Your task to perform on an android device: toggle location history Image 0: 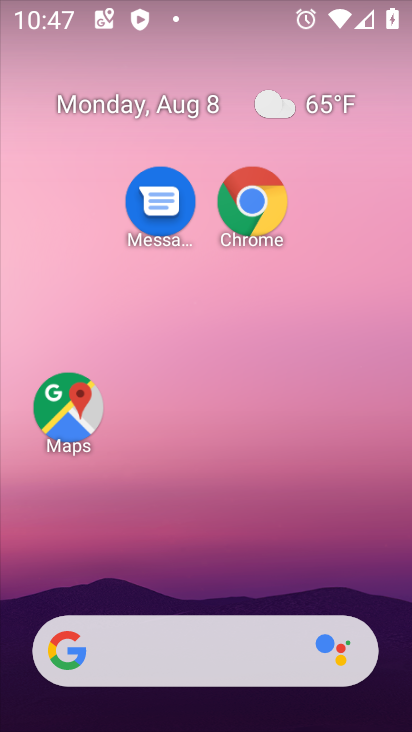
Step 0: press home button
Your task to perform on an android device: toggle location history Image 1: 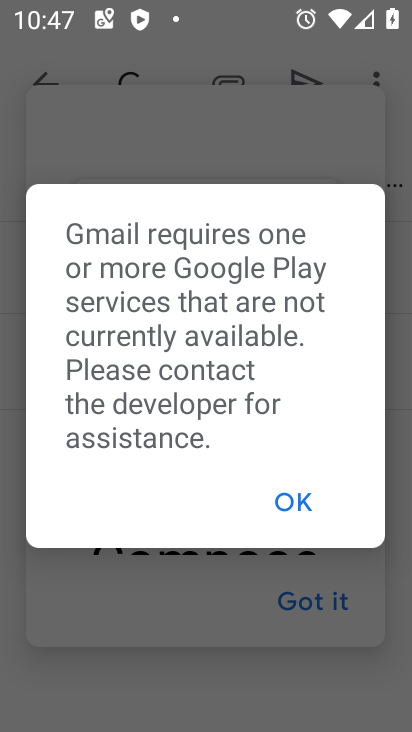
Step 1: drag from (246, 393) to (248, 72)
Your task to perform on an android device: toggle location history Image 2: 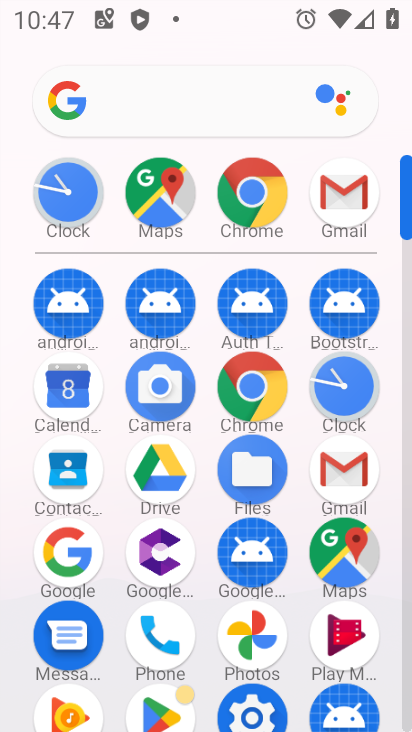
Step 2: drag from (209, 665) to (248, 87)
Your task to perform on an android device: toggle location history Image 3: 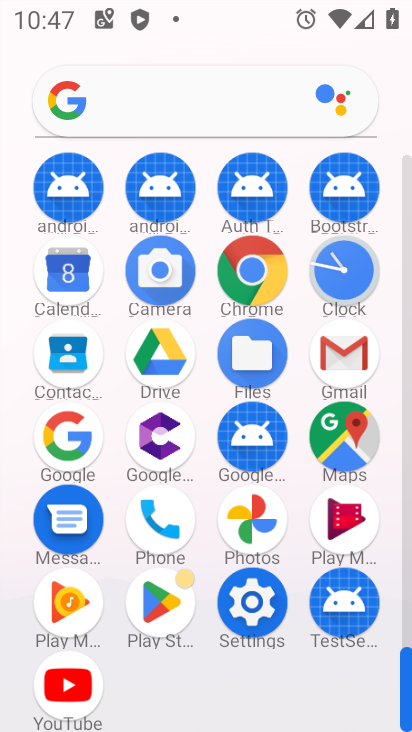
Step 3: click (244, 596)
Your task to perform on an android device: toggle location history Image 4: 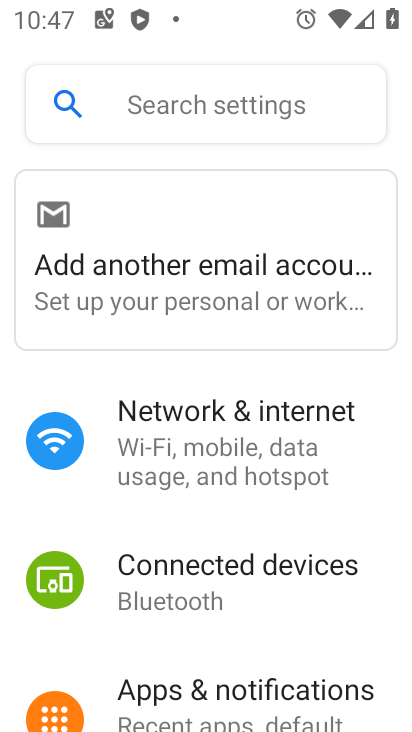
Step 4: drag from (97, 708) to (111, 118)
Your task to perform on an android device: toggle location history Image 5: 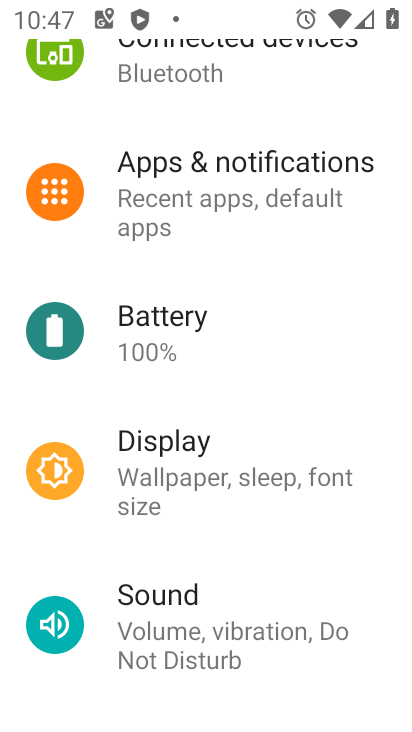
Step 5: drag from (94, 578) to (113, 147)
Your task to perform on an android device: toggle location history Image 6: 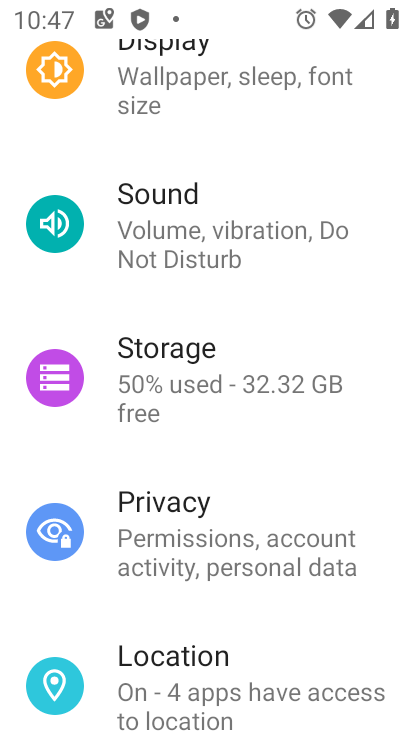
Step 6: click (142, 699)
Your task to perform on an android device: toggle location history Image 7: 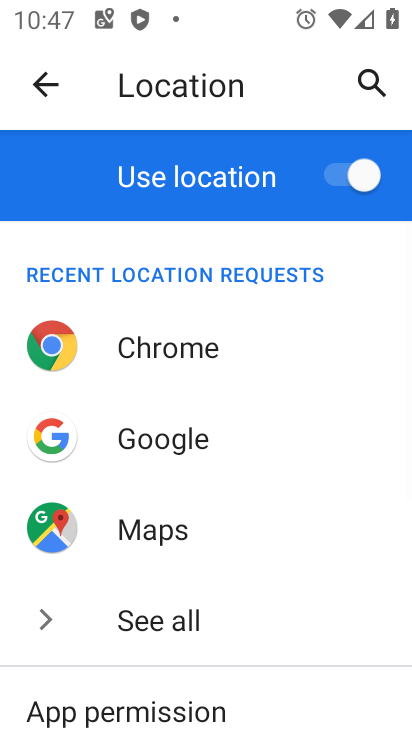
Step 7: drag from (227, 697) to (279, 157)
Your task to perform on an android device: toggle location history Image 8: 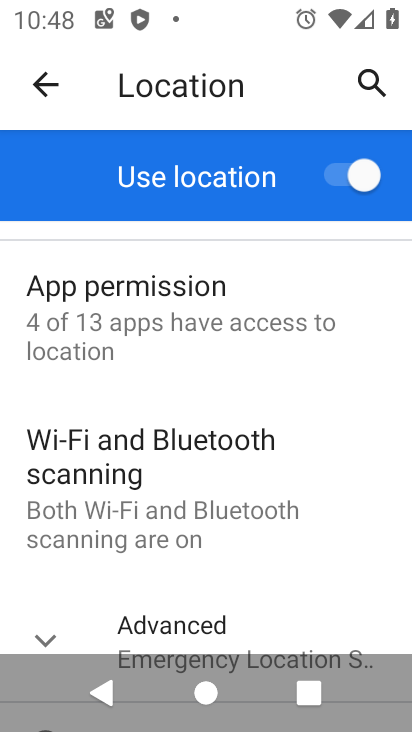
Step 8: click (218, 617)
Your task to perform on an android device: toggle location history Image 9: 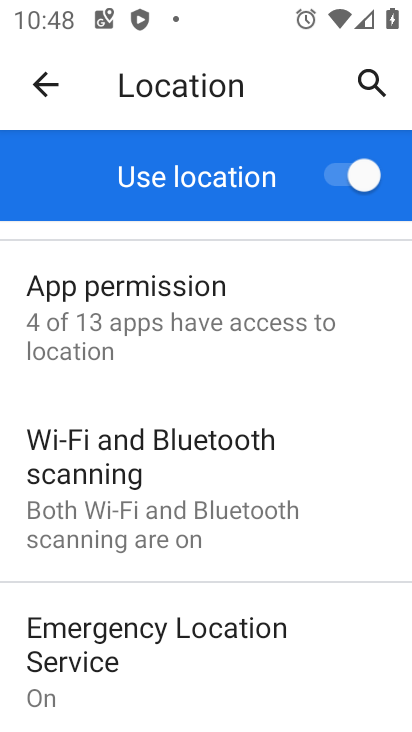
Step 9: drag from (232, 654) to (228, 162)
Your task to perform on an android device: toggle location history Image 10: 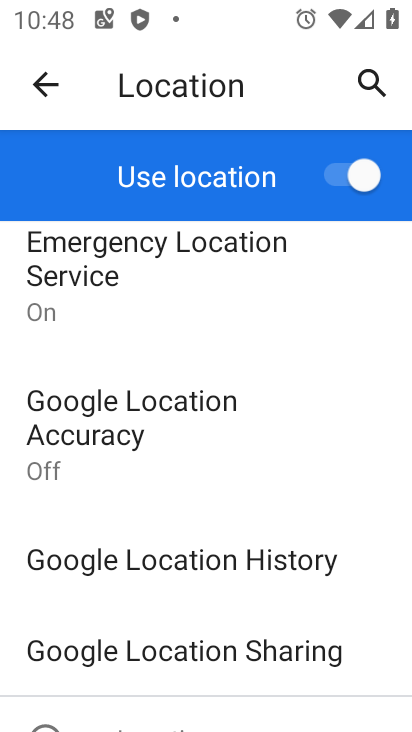
Step 10: click (264, 558)
Your task to perform on an android device: toggle location history Image 11: 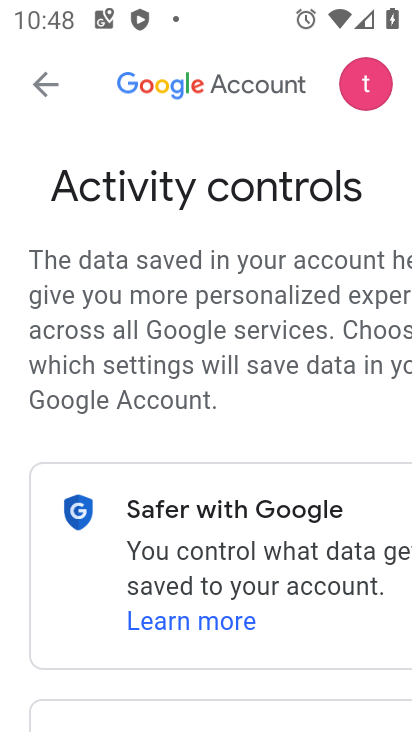
Step 11: drag from (193, 573) to (219, 137)
Your task to perform on an android device: toggle location history Image 12: 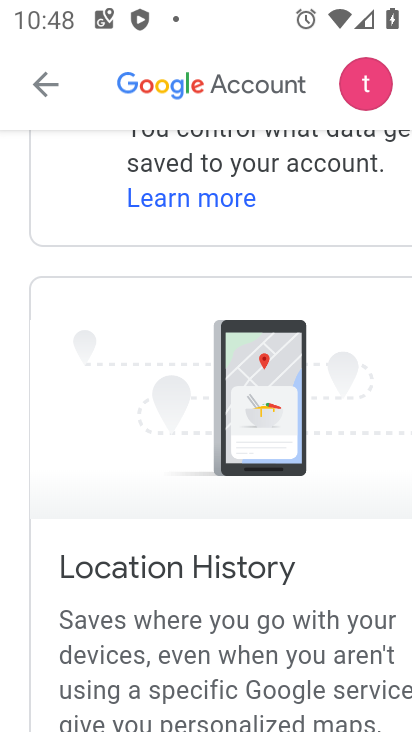
Step 12: drag from (261, 648) to (343, 187)
Your task to perform on an android device: toggle location history Image 13: 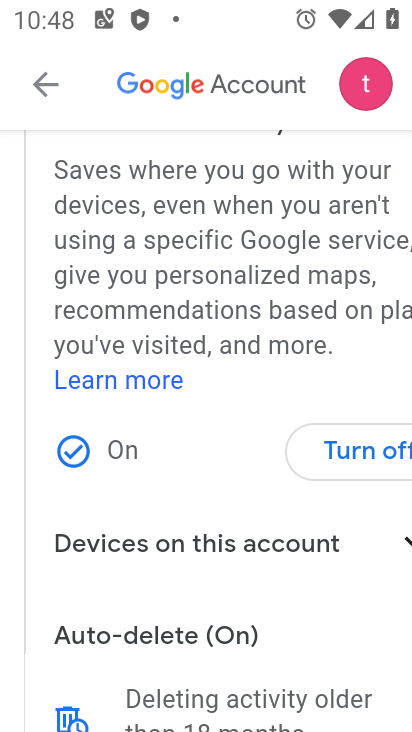
Step 13: click (347, 441)
Your task to perform on an android device: toggle location history Image 14: 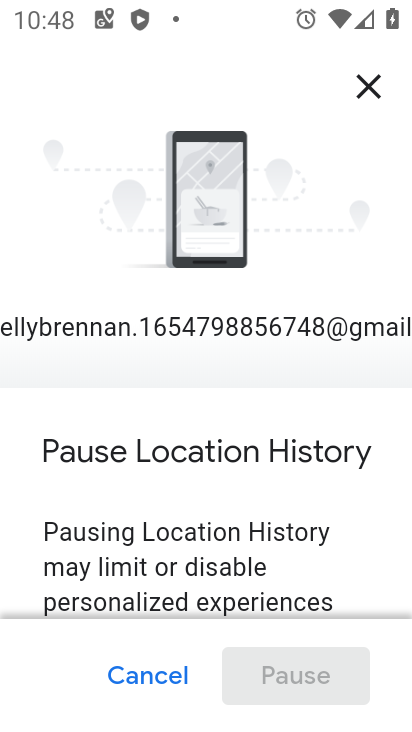
Step 14: drag from (243, 556) to (263, 115)
Your task to perform on an android device: toggle location history Image 15: 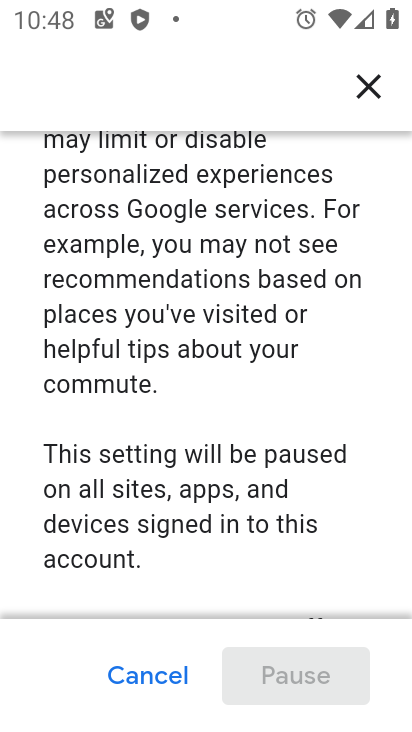
Step 15: drag from (279, 579) to (286, 151)
Your task to perform on an android device: toggle location history Image 16: 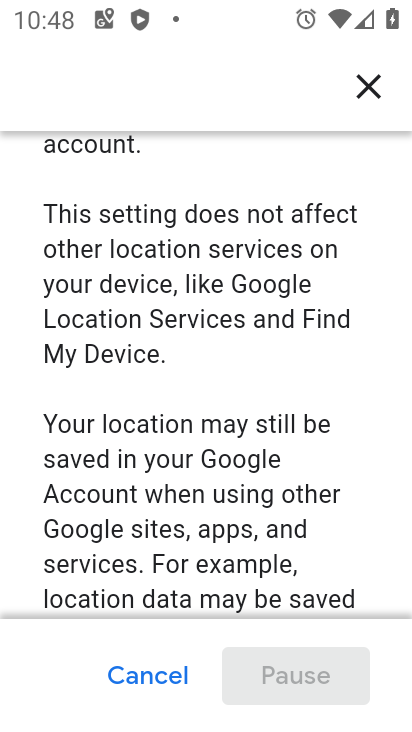
Step 16: drag from (244, 504) to (285, 144)
Your task to perform on an android device: toggle location history Image 17: 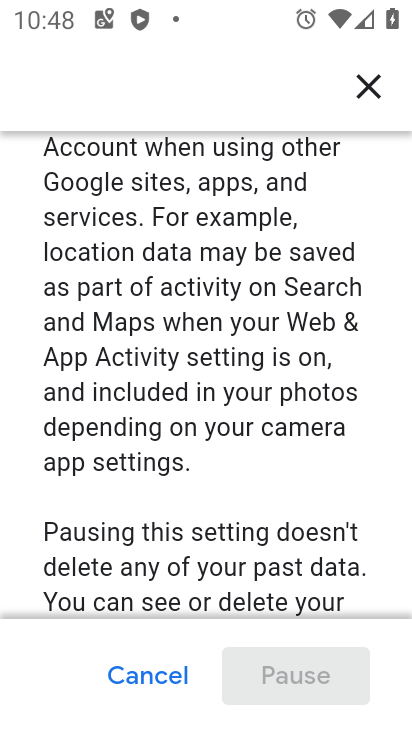
Step 17: drag from (200, 586) to (199, 117)
Your task to perform on an android device: toggle location history Image 18: 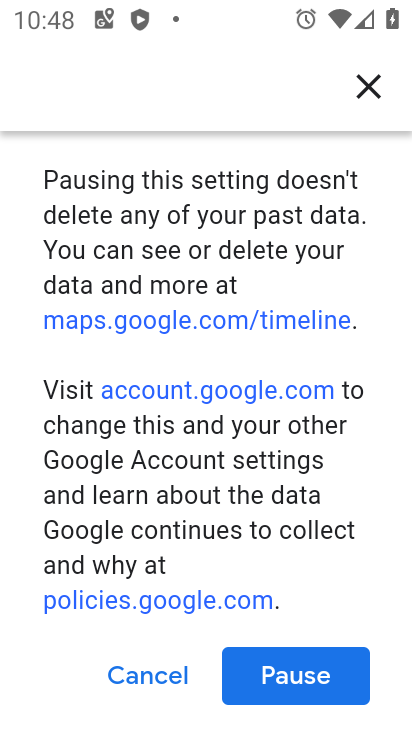
Step 18: click (303, 684)
Your task to perform on an android device: toggle location history Image 19: 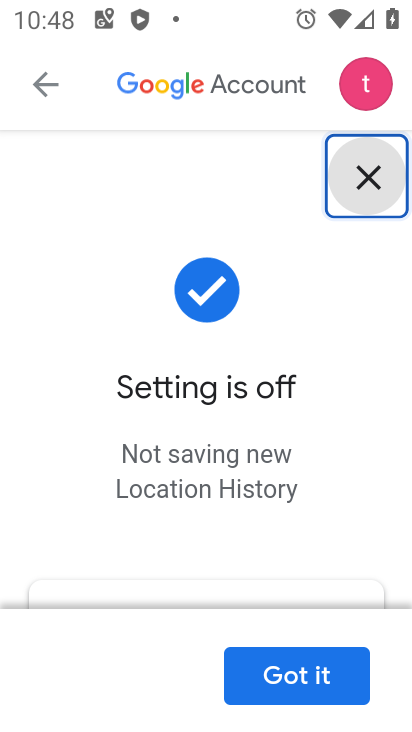
Step 19: click (300, 676)
Your task to perform on an android device: toggle location history Image 20: 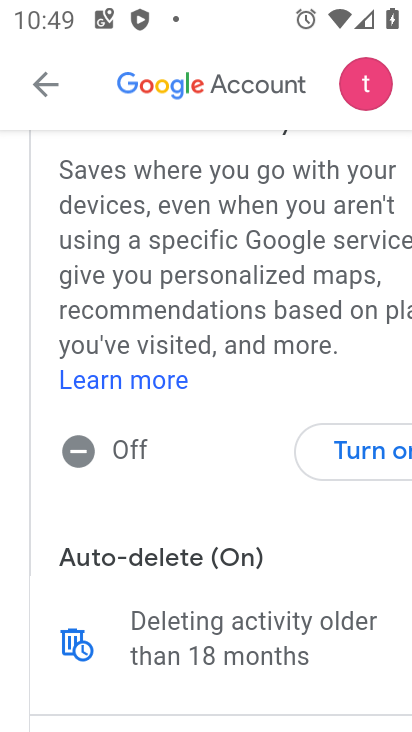
Step 20: task complete